Your task to perform on an android device: Add "razer deathadder" to the cart on amazon, then select checkout. Image 0: 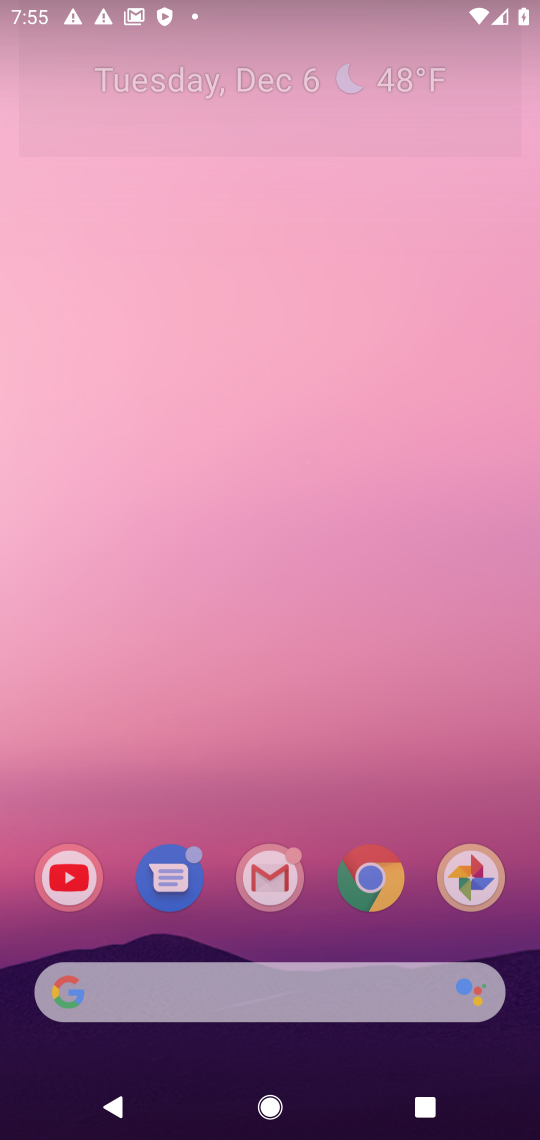
Step 0: press home button
Your task to perform on an android device: Add "razer deathadder" to the cart on amazon, then select checkout. Image 1: 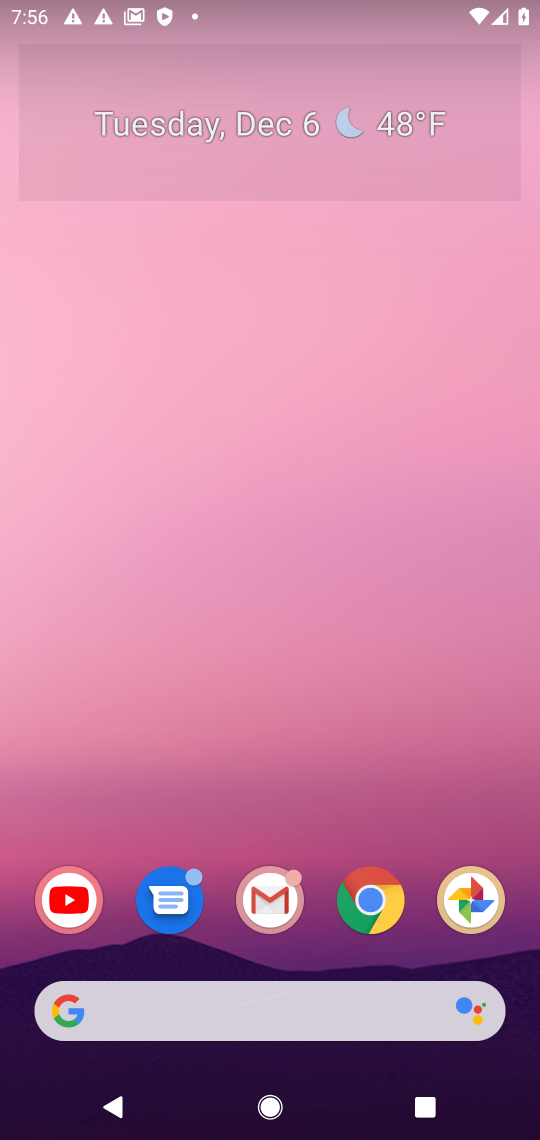
Step 1: drag from (212, 939) to (212, 245)
Your task to perform on an android device: Add "razer deathadder" to the cart on amazon, then select checkout. Image 2: 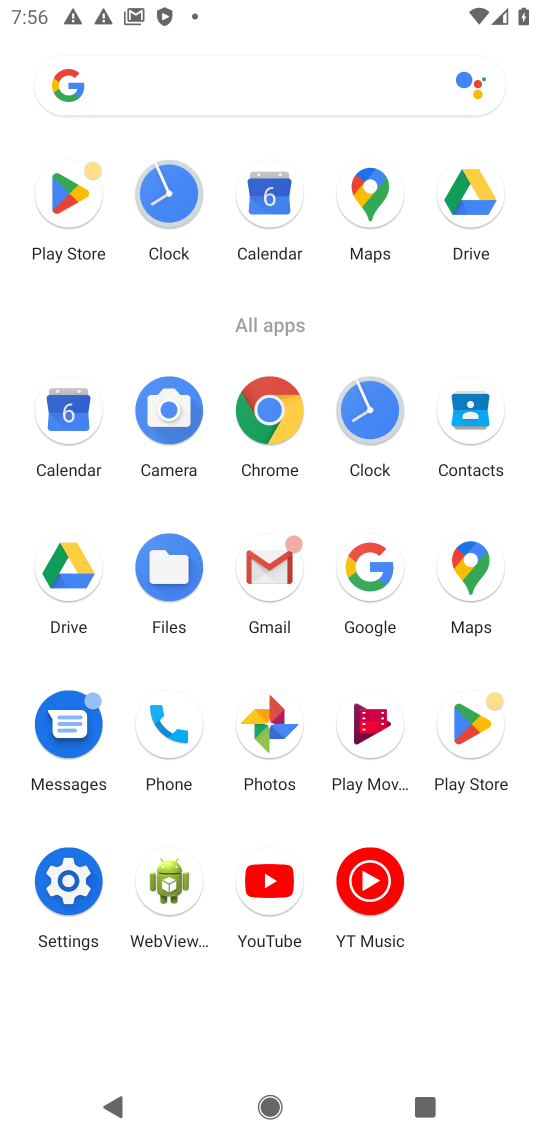
Step 2: click (369, 570)
Your task to perform on an android device: Add "razer deathadder" to the cart on amazon, then select checkout. Image 3: 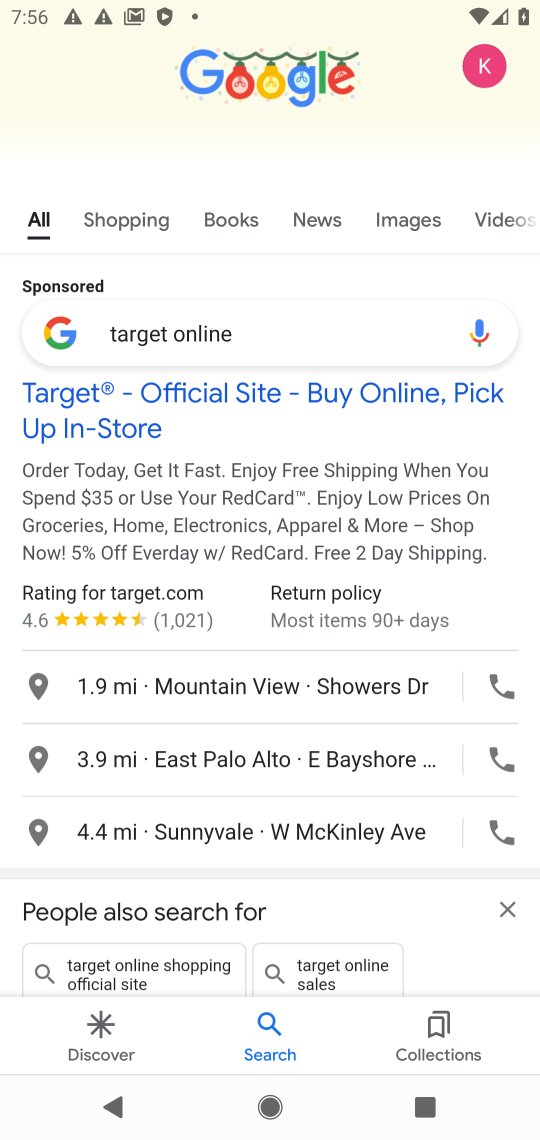
Step 3: click (170, 345)
Your task to perform on an android device: Add "razer deathadder" to the cart on amazon, then select checkout. Image 4: 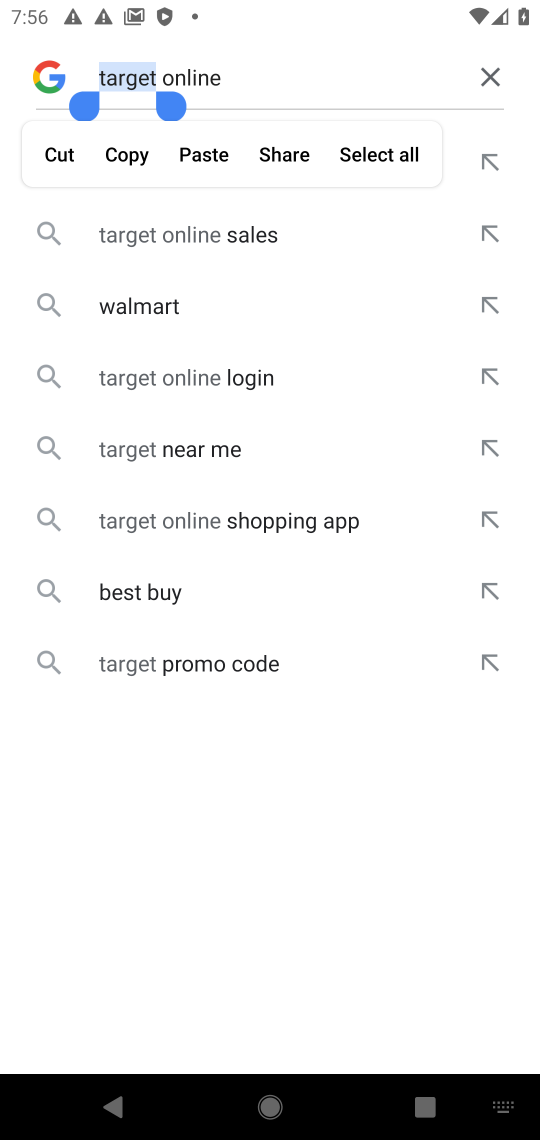
Step 4: click (484, 73)
Your task to perform on an android device: Add "razer deathadder" to the cart on amazon, then select checkout. Image 5: 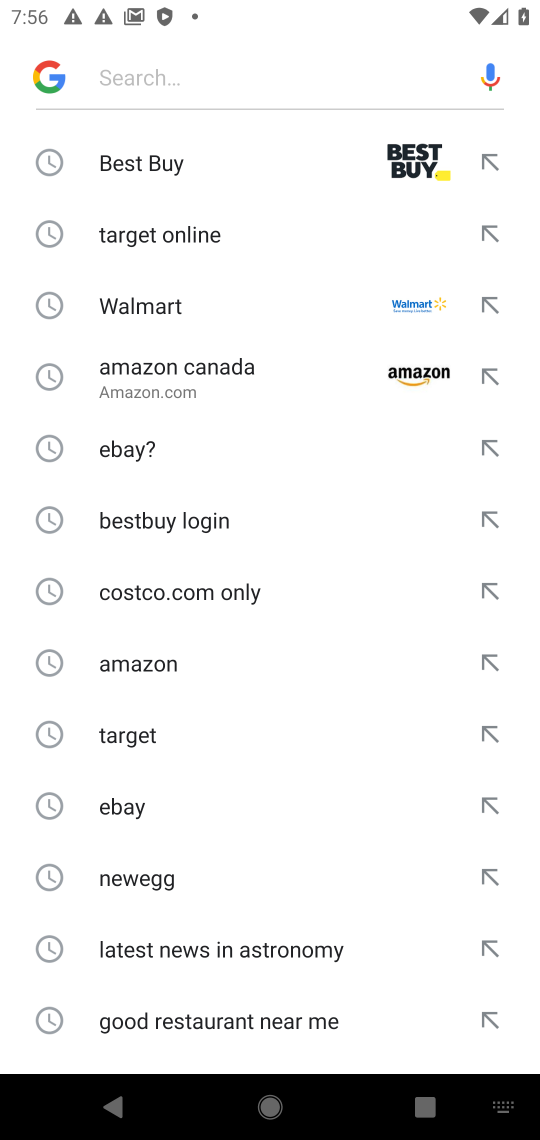
Step 5: click (449, 372)
Your task to perform on an android device: Add "razer deathadder" to the cart on amazon, then select checkout. Image 6: 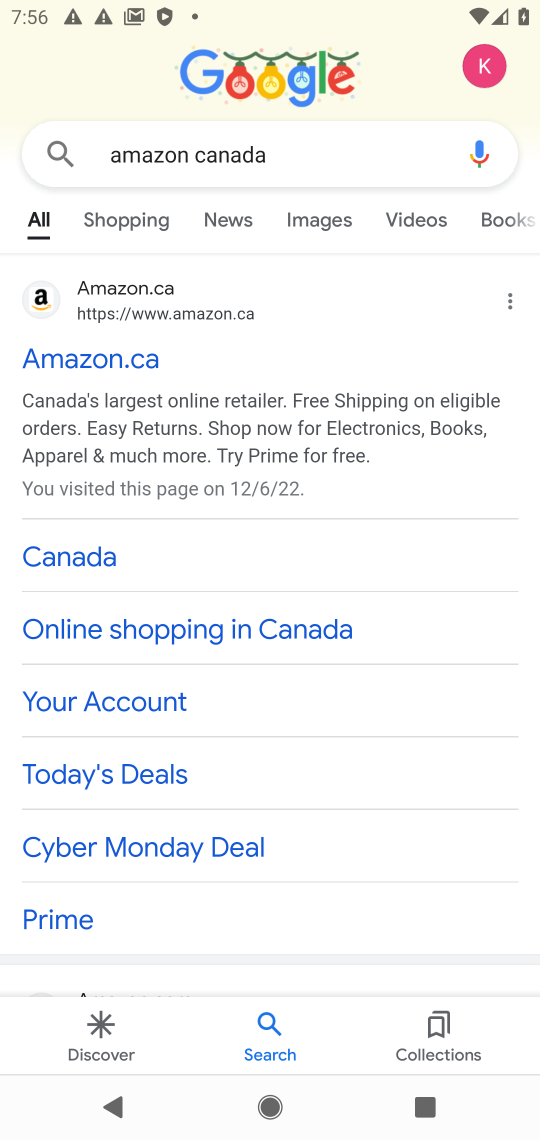
Step 6: click (252, 165)
Your task to perform on an android device: Add "razer deathadder" to the cart on amazon, then select checkout. Image 7: 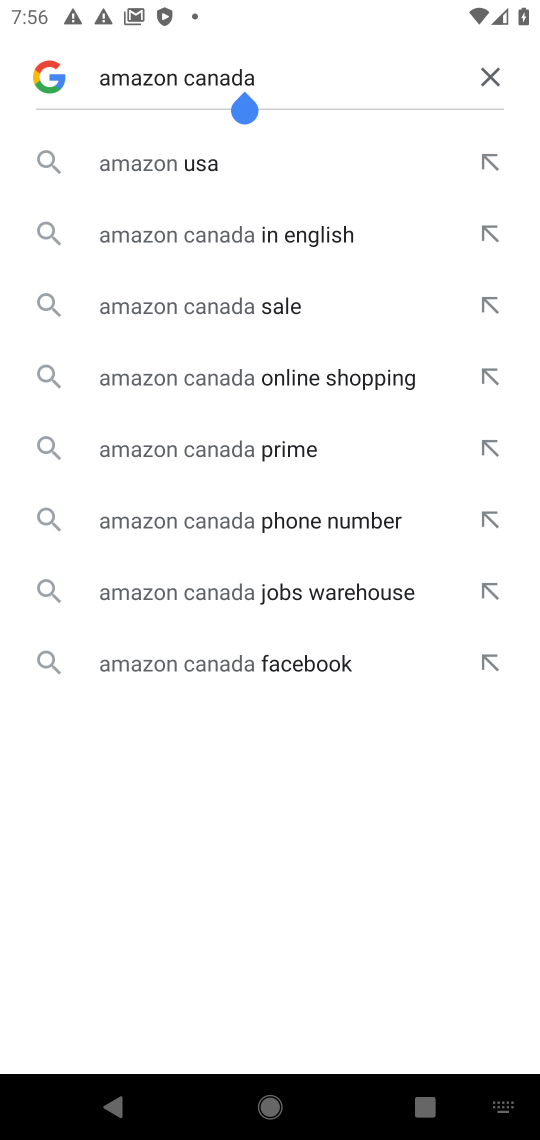
Step 7: click (482, 88)
Your task to perform on an android device: Add "razer deathadder" to the cart on amazon, then select checkout. Image 8: 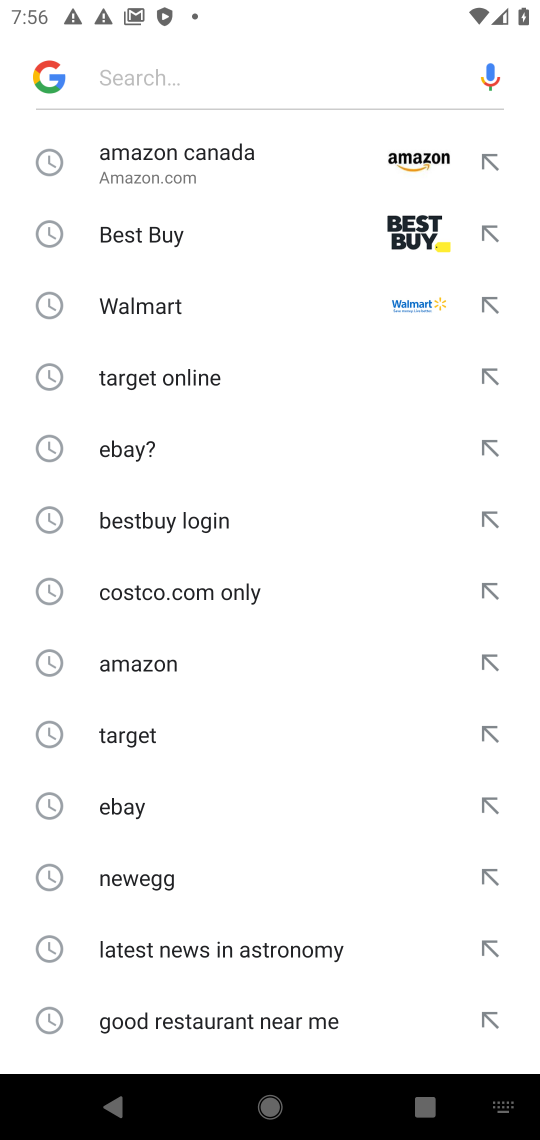
Step 8: click (412, 161)
Your task to perform on an android device: Add "razer deathadder" to the cart on amazon, then select checkout. Image 9: 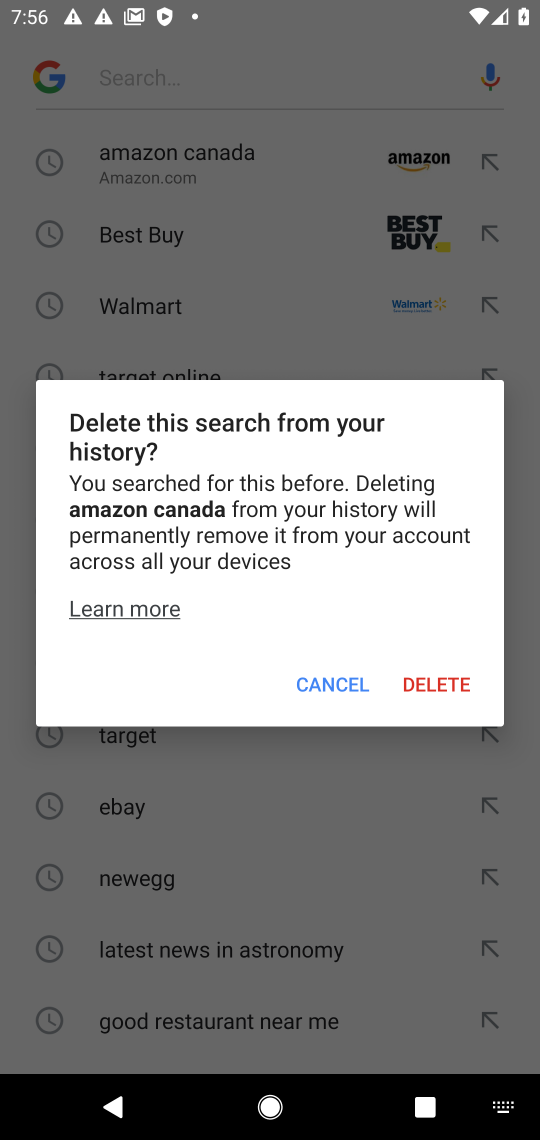
Step 9: click (334, 688)
Your task to perform on an android device: Add "razer deathadder" to the cart on amazon, then select checkout. Image 10: 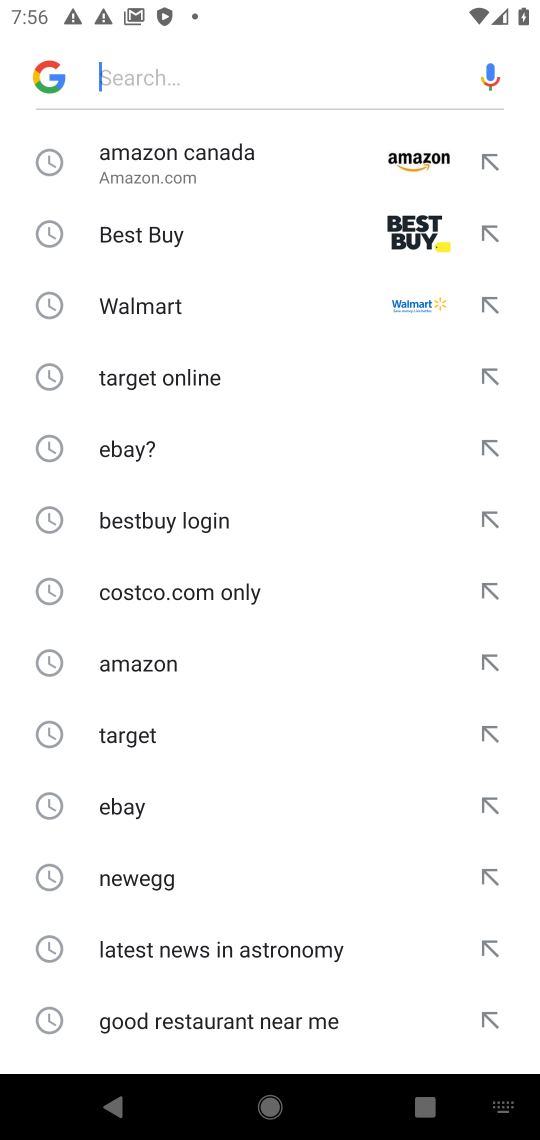
Step 10: click (151, 162)
Your task to perform on an android device: Add "razer deathadder" to the cart on amazon, then select checkout. Image 11: 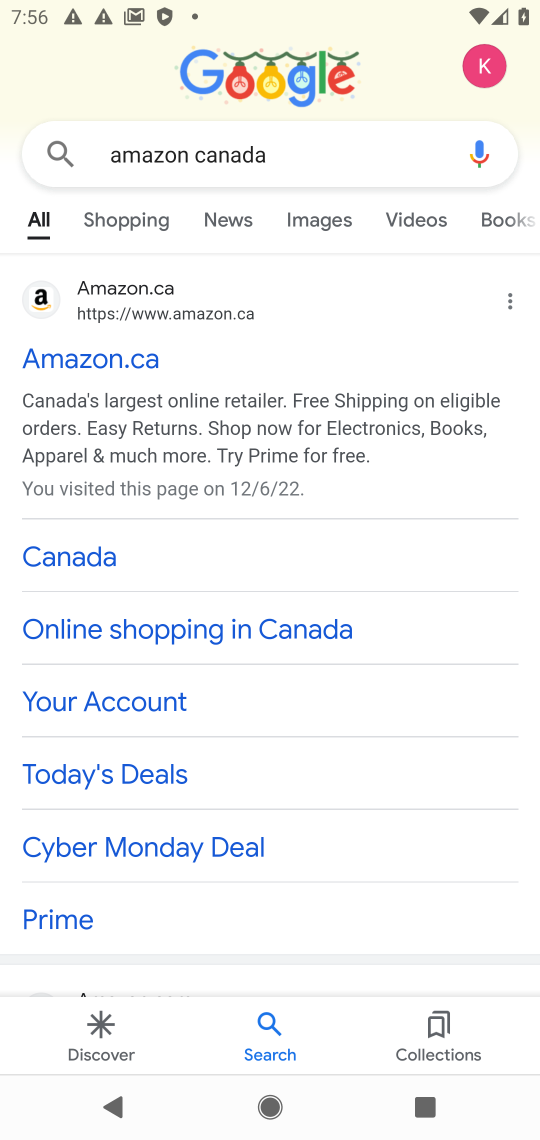
Step 11: click (107, 360)
Your task to perform on an android device: Add "razer deathadder" to the cart on amazon, then select checkout. Image 12: 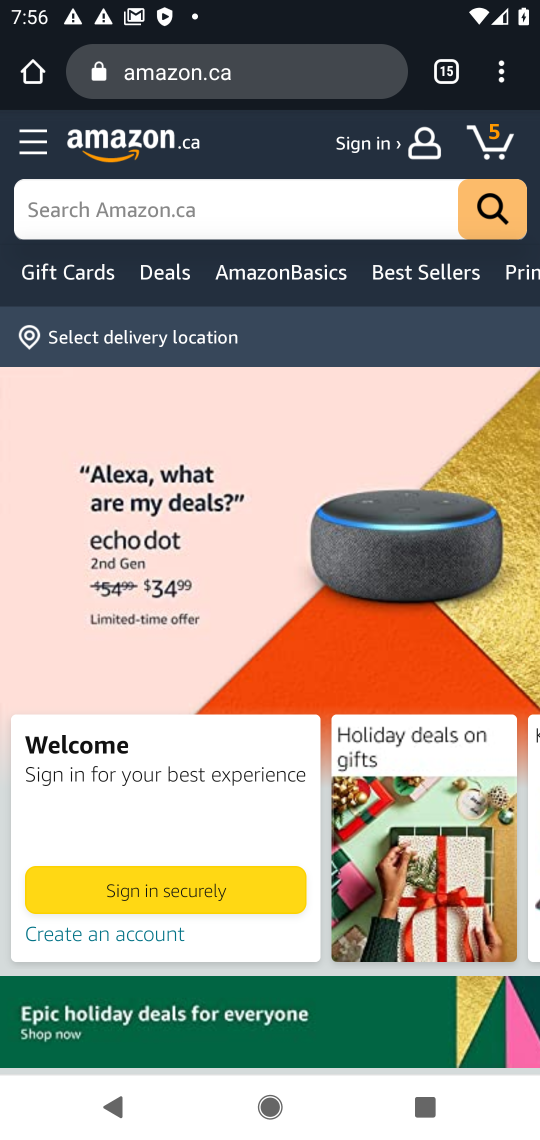
Step 12: click (90, 216)
Your task to perform on an android device: Add "razer deathadder" to the cart on amazon, then select checkout. Image 13: 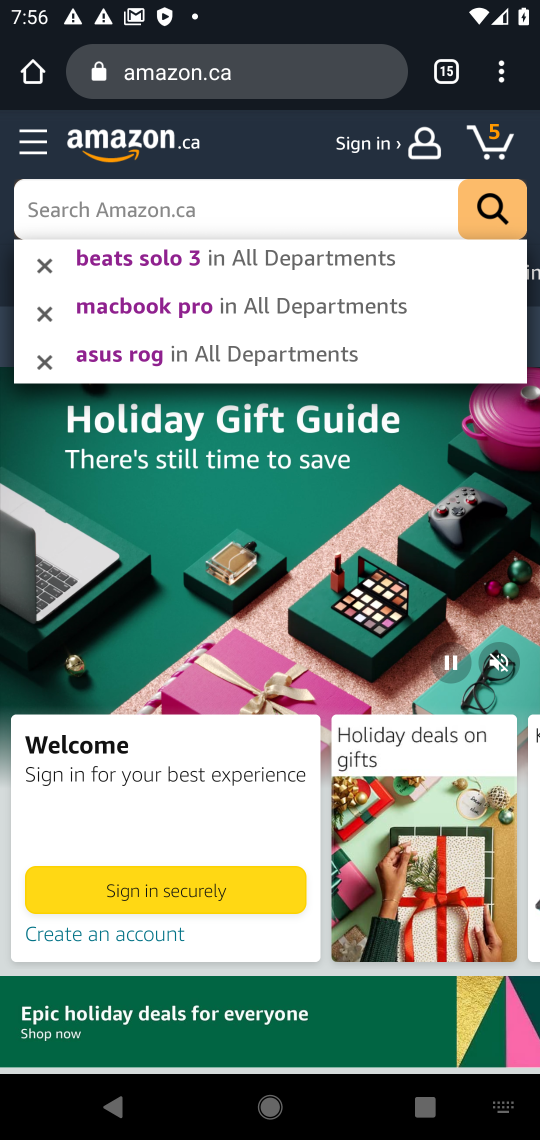
Step 13: type "razer deathadder"
Your task to perform on an android device: Add "razer deathadder" to the cart on amazon, then select checkout. Image 14: 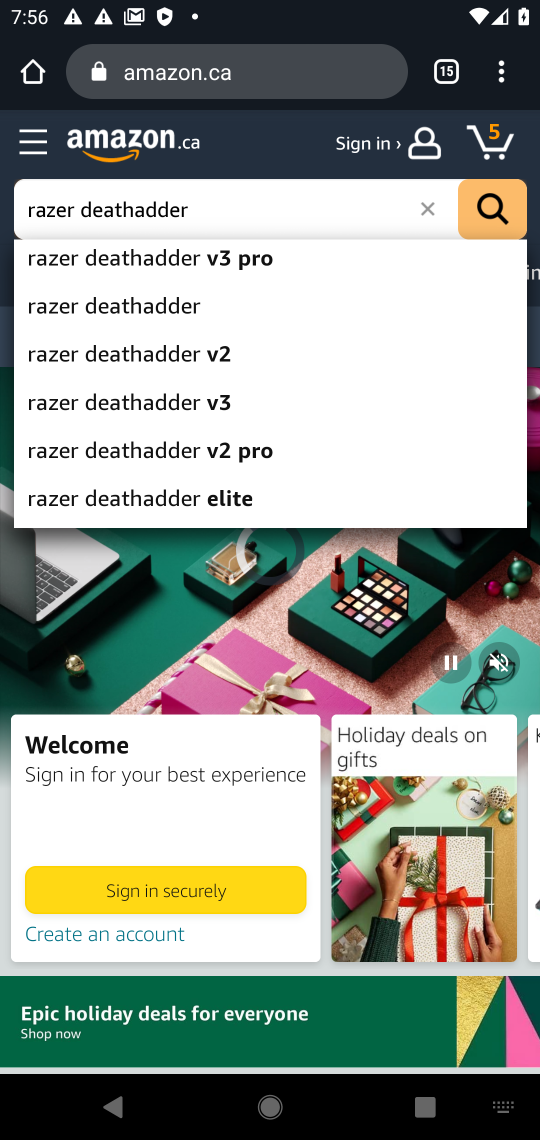
Step 14: click (501, 207)
Your task to perform on an android device: Add "razer deathadder" to the cart on amazon, then select checkout. Image 15: 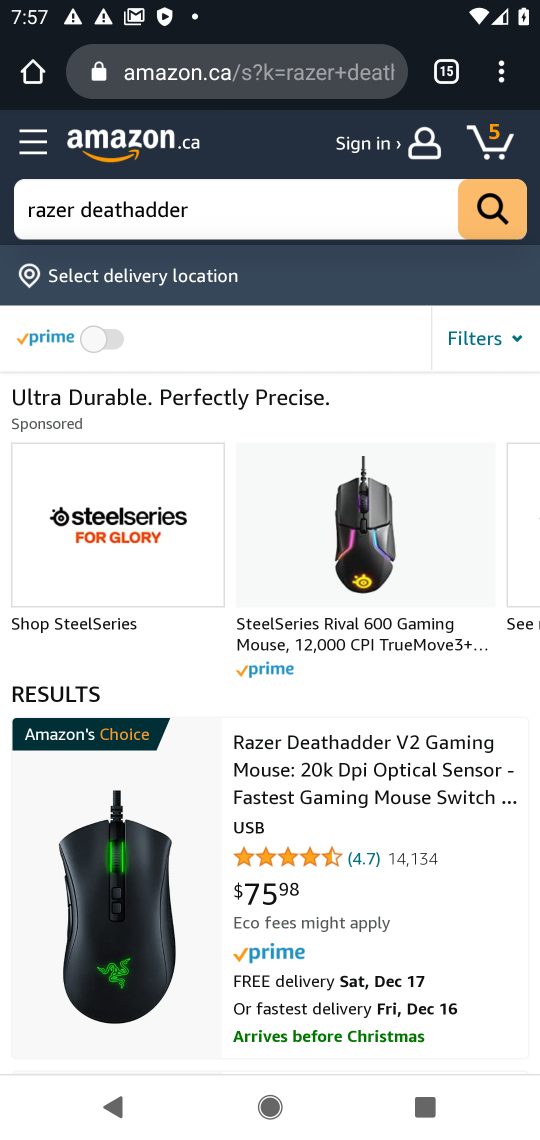
Step 15: drag from (315, 946) to (260, 530)
Your task to perform on an android device: Add "razer deathadder" to the cart on amazon, then select checkout. Image 16: 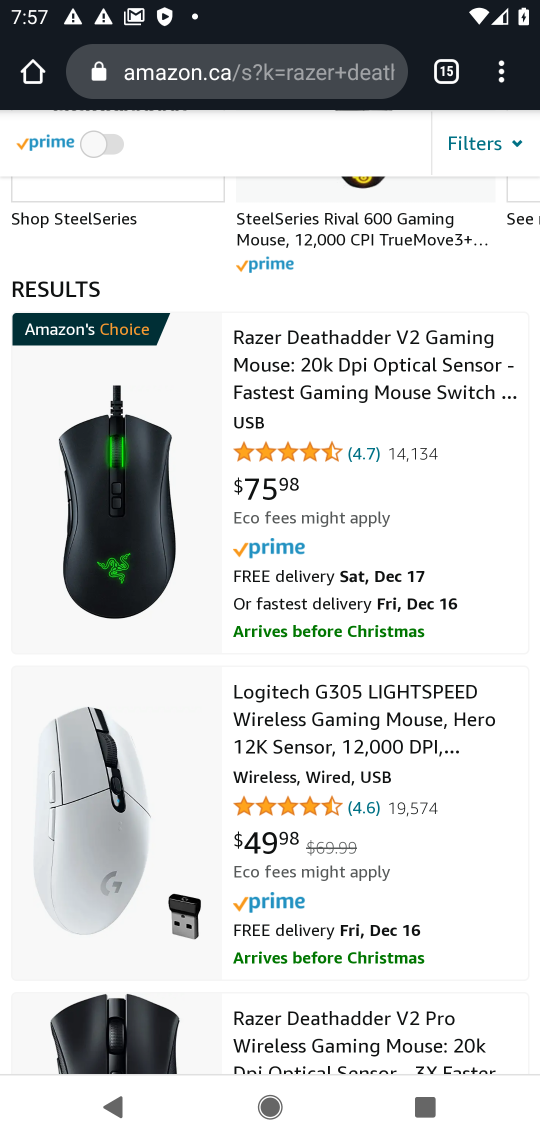
Step 16: click (293, 386)
Your task to perform on an android device: Add "razer deathadder" to the cart on amazon, then select checkout. Image 17: 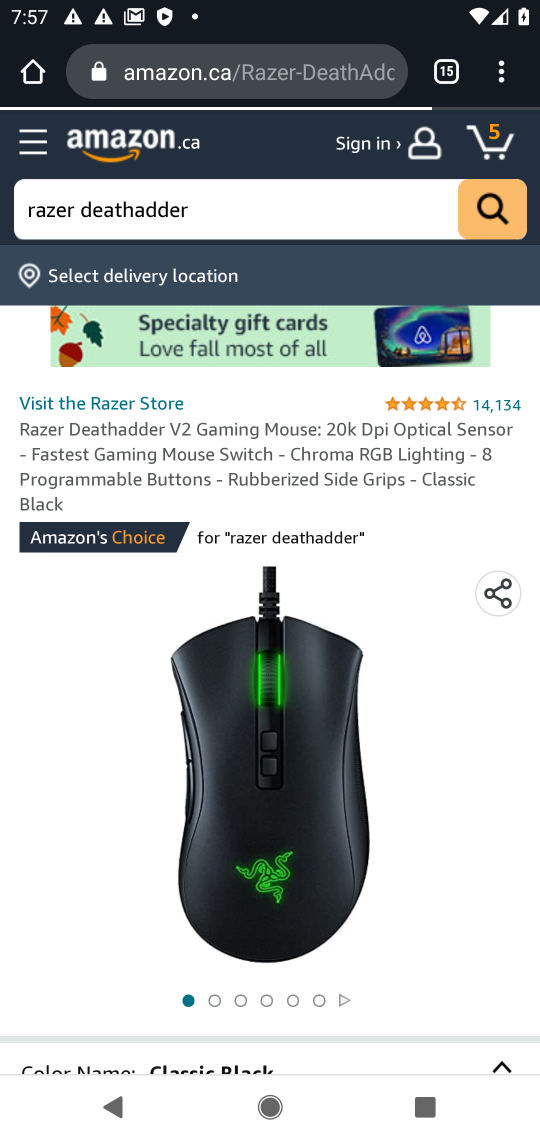
Step 17: drag from (366, 841) to (366, 421)
Your task to perform on an android device: Add "razer deathadder" to the cart on amazon, then select checkout. Image 18: 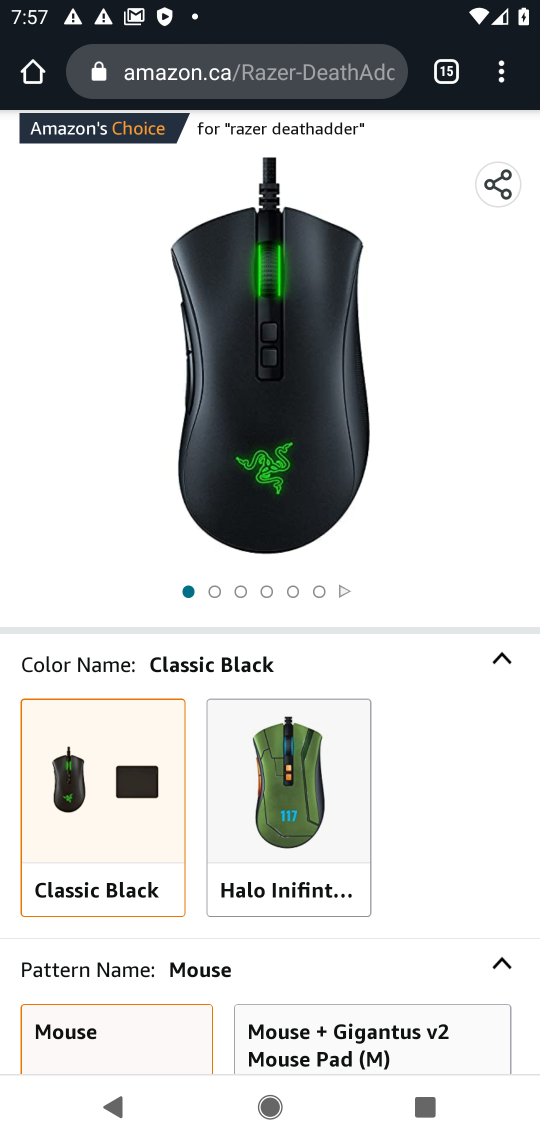
Step 18: drag from (388, 957) to (321, 405)
Your task to perform on an android device: Add "razer deathadder" to the cart on amazon, then select checkout. Image 19: 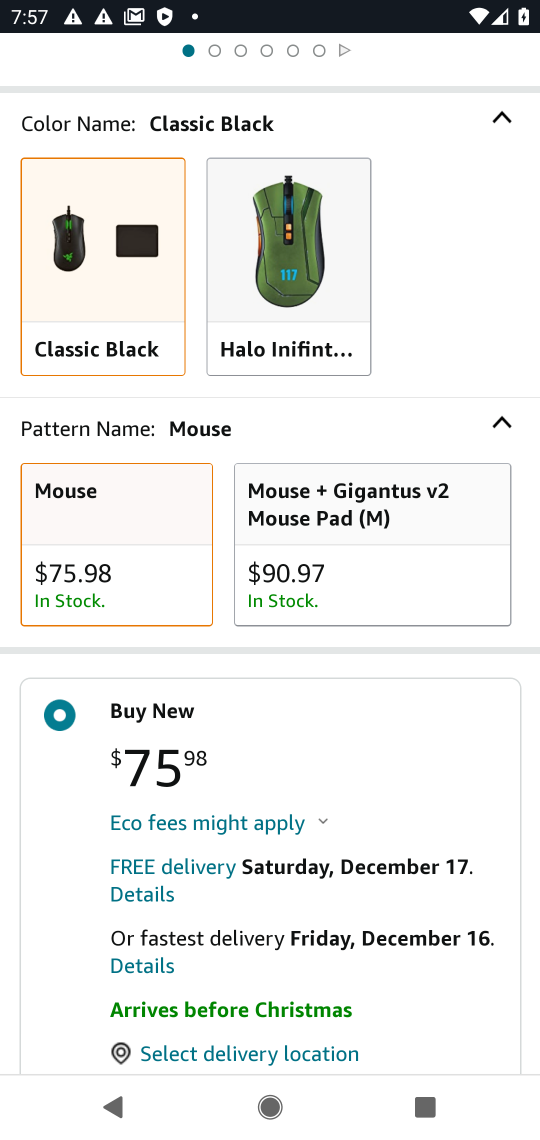
Step 19: drag from (308, 891) to (241, 347)
Your task to perform on an android device: Add "razer deathadder" to the cart on amazon, then select checkout. Image 20: 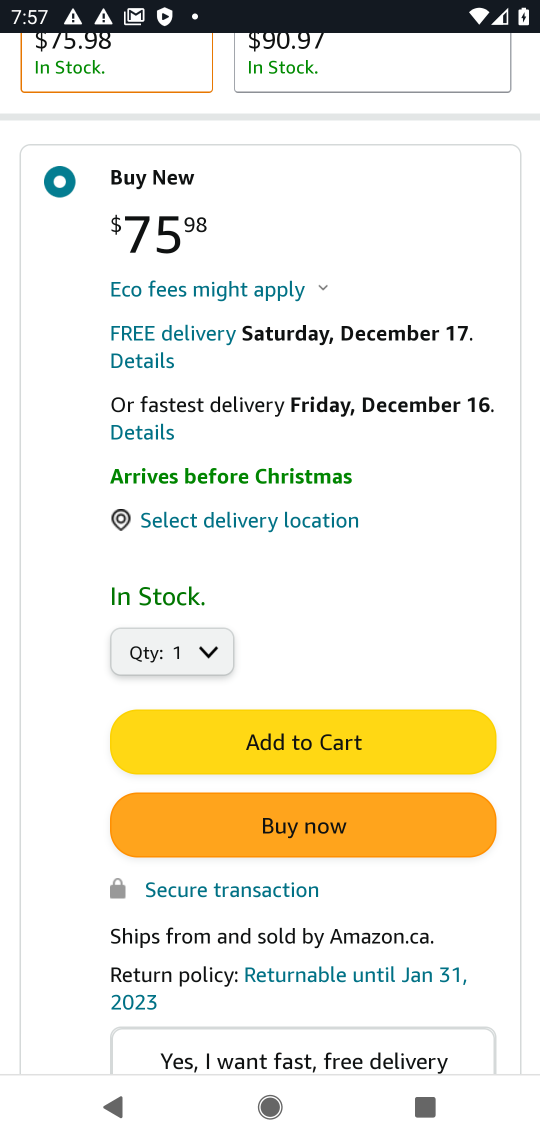
Step 20: click (274, 734)
Your task to perform on an android device: Add "razer deathadder" to the cart on amazon, then select checkout. Image 21: 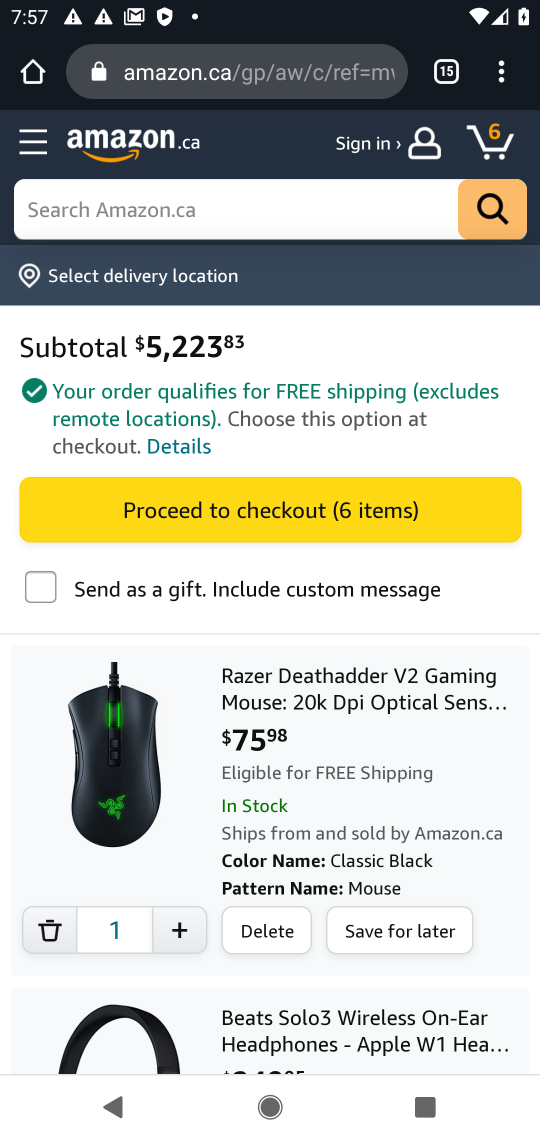
Step 21: click (257, 495)
Your task to perform on an android device: Add "razer deathadder" to the cart on amazon, then select checkout. Image 22: 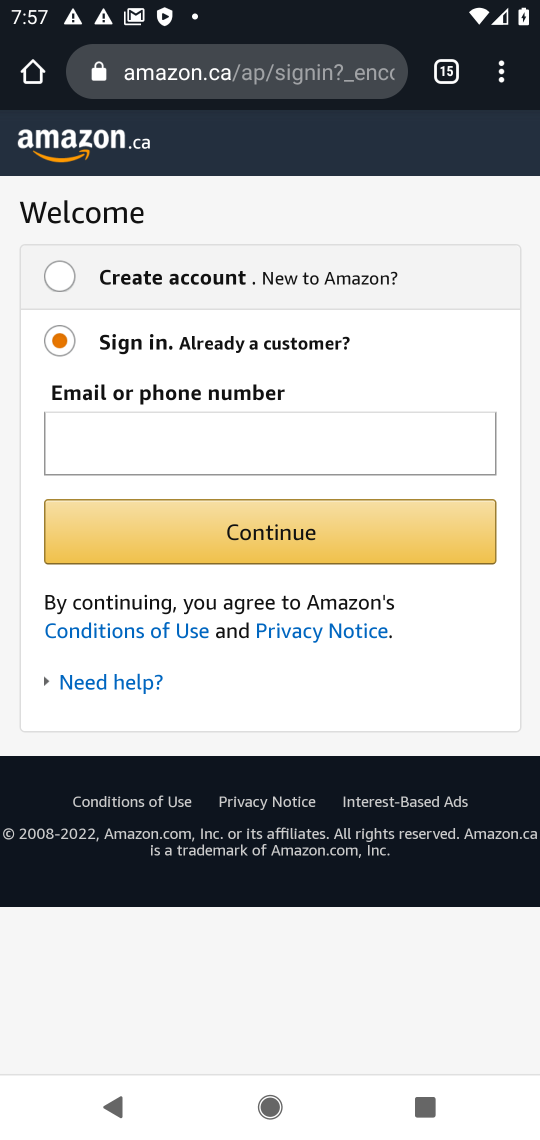
Step 22: task complete